Your task to perform on an android device: turn off location Image 0: 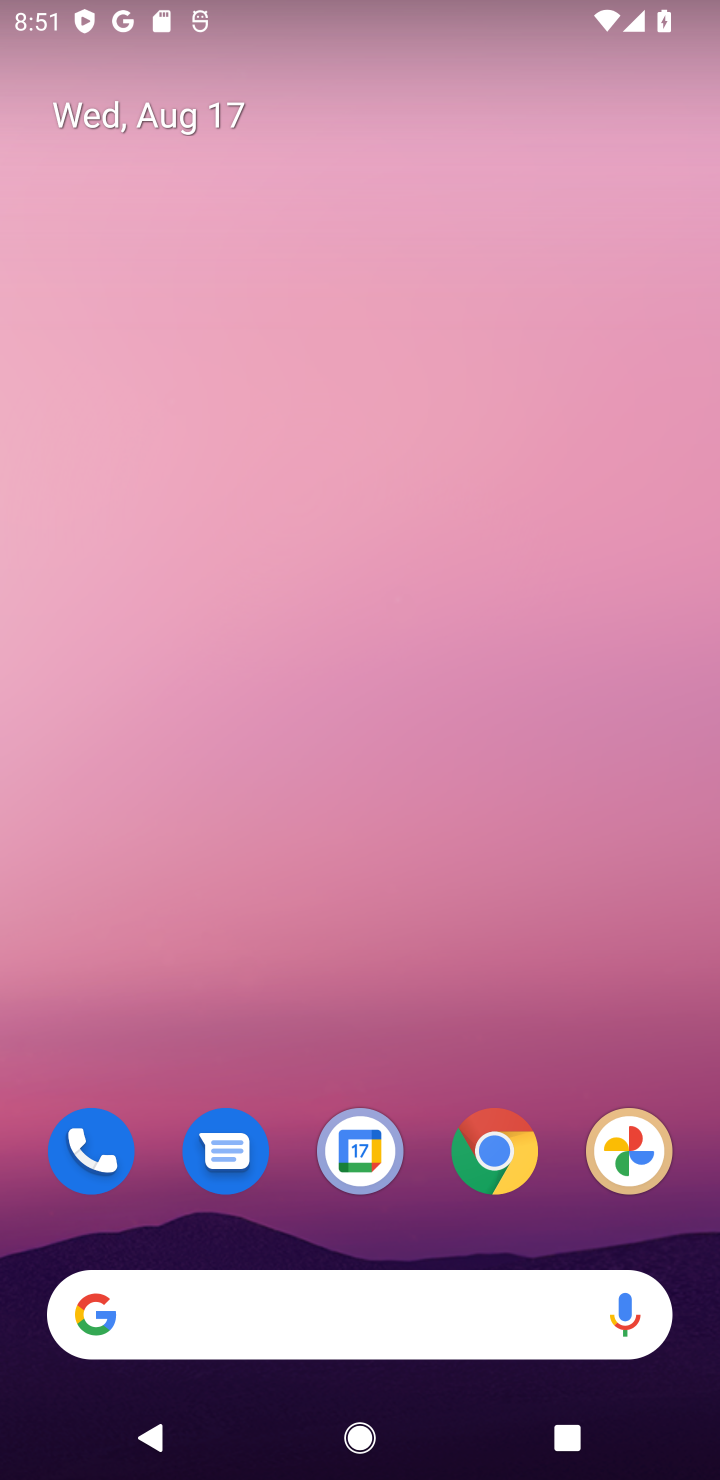
Step 0: drag from (333, 1200) to (199, 320)
Your task to perform on an android device: turn off location Image 1: 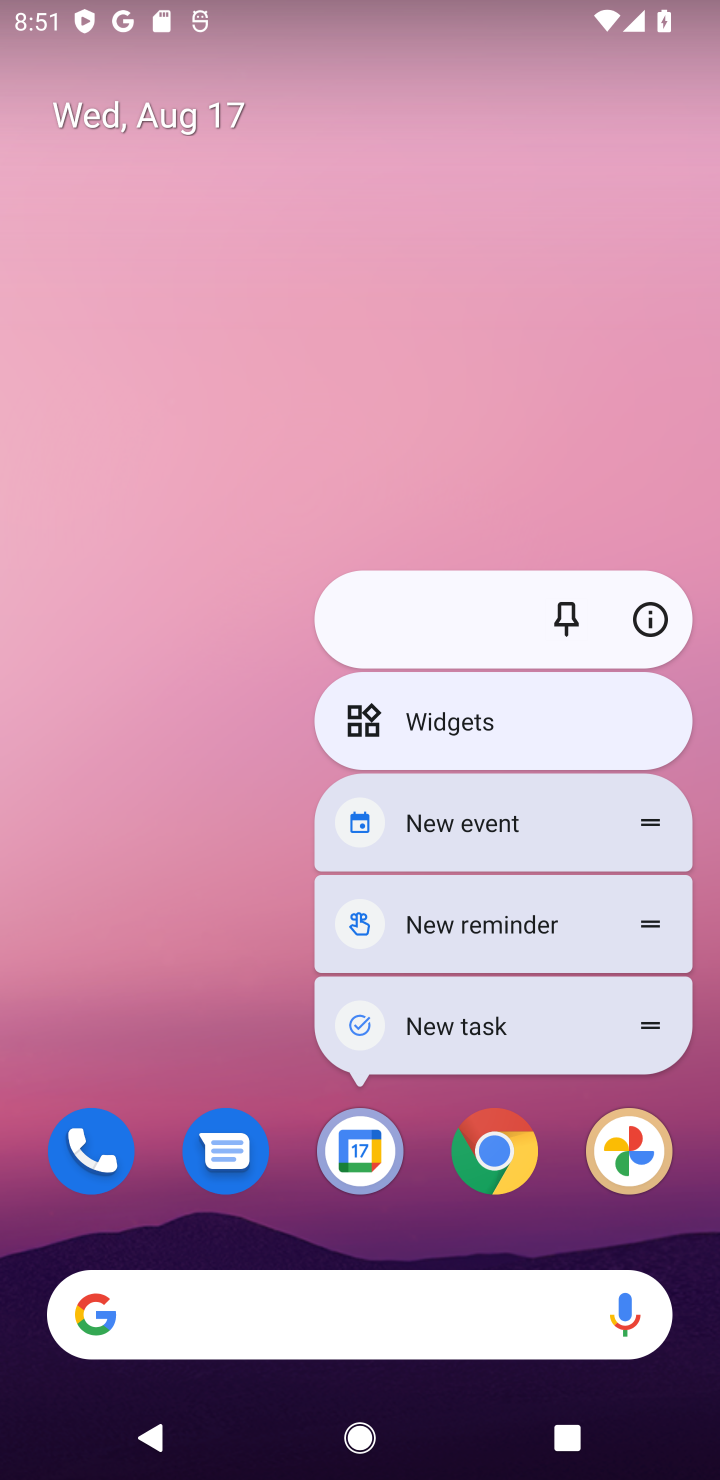
Step 1: click (315, 1231)
Your task to perform on an android device: turn off location Image 2: 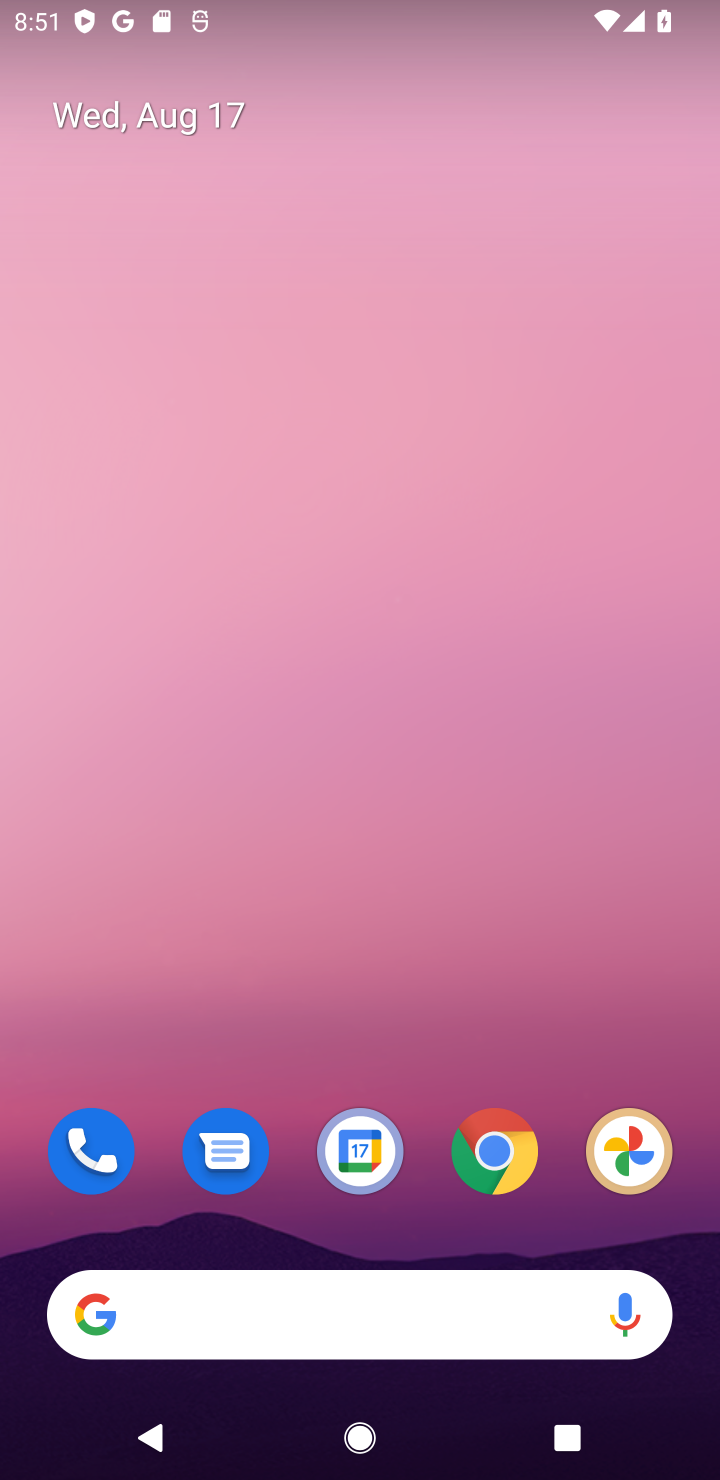
Step 2: drag from (287, 1039) to (287, 304)
Your task to perform on an android device: turn off location Image 3: 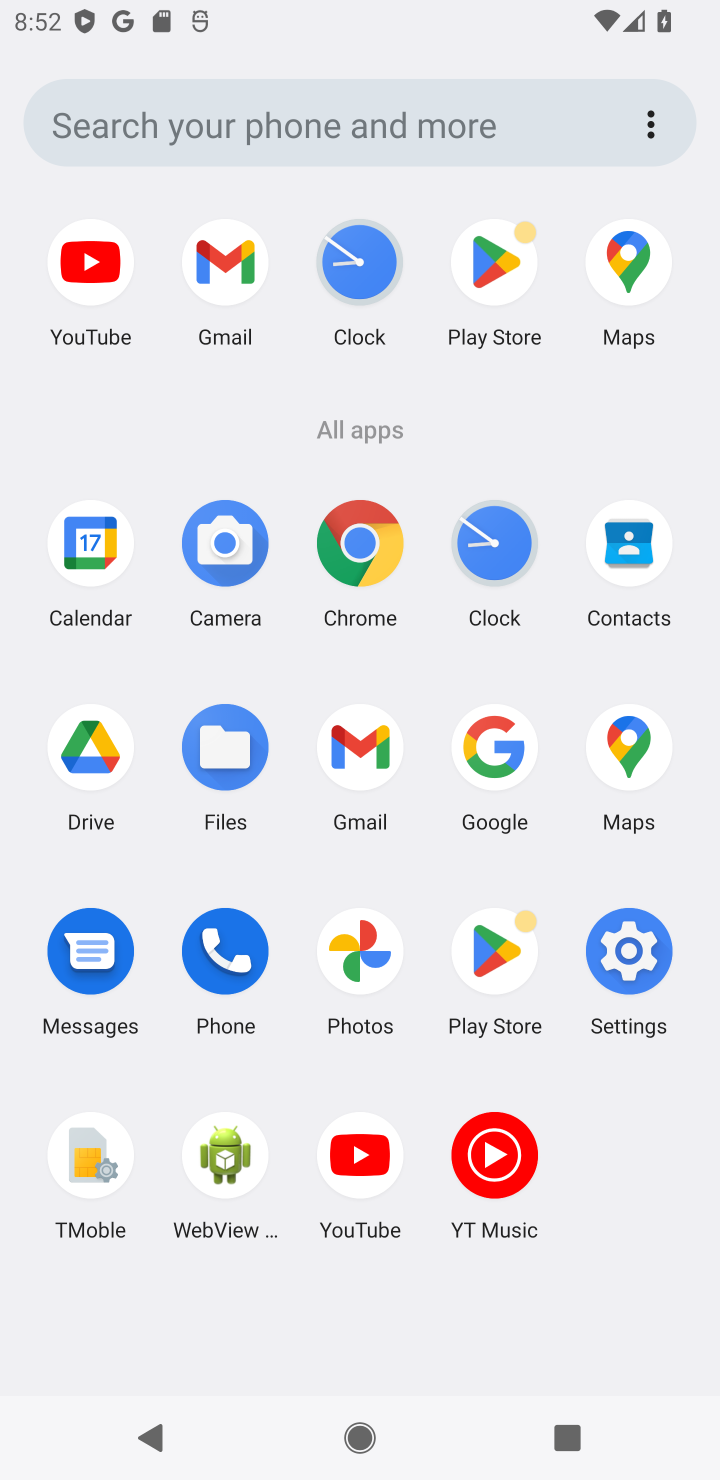
Step 3: click (638, 969)
Your task to perform on an android device: turn off location Image 4: 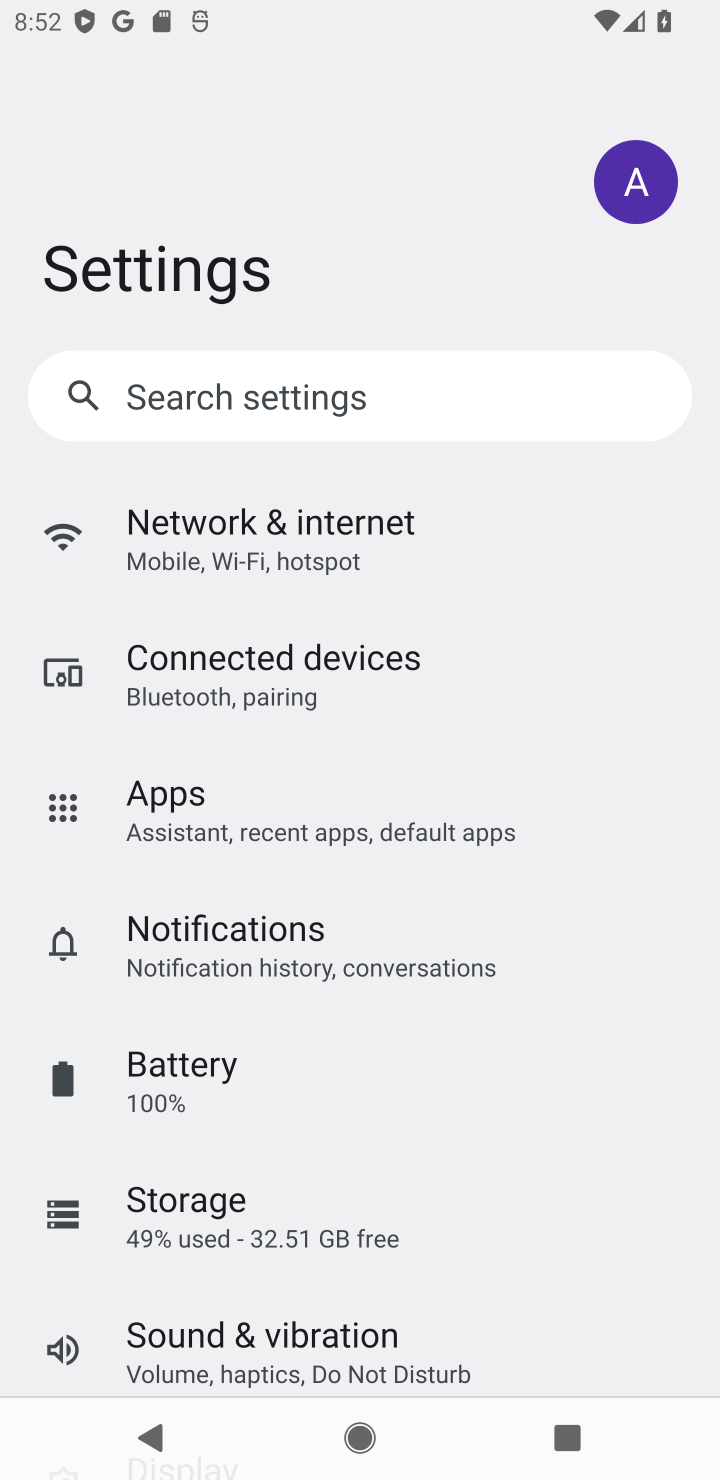
Step 4: drag from (419, 1229) to (352, 763)
Your task to perform on an android device: turn off location Image 5: 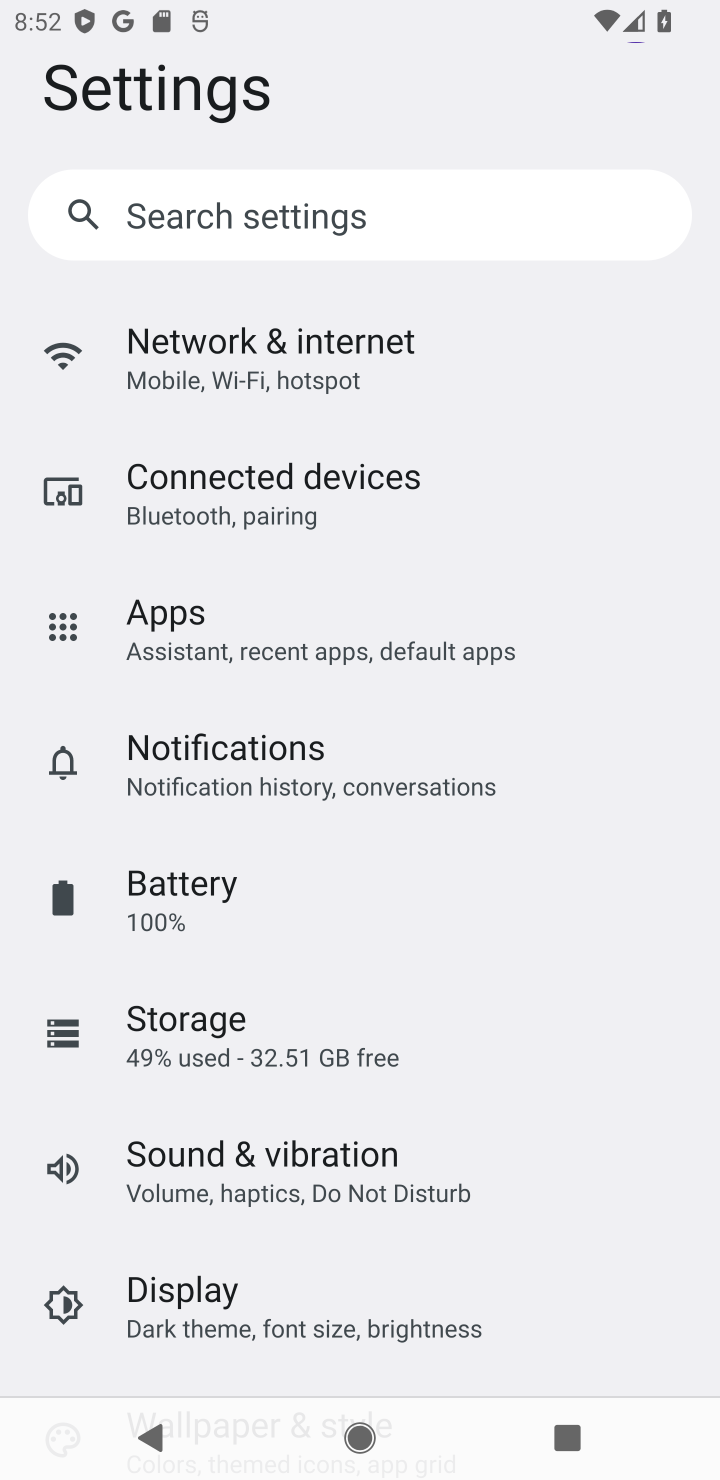
Step 5: drag from (304, 1262) to (304, 755)
Your task to perform on an android device: turn off location Image 6: 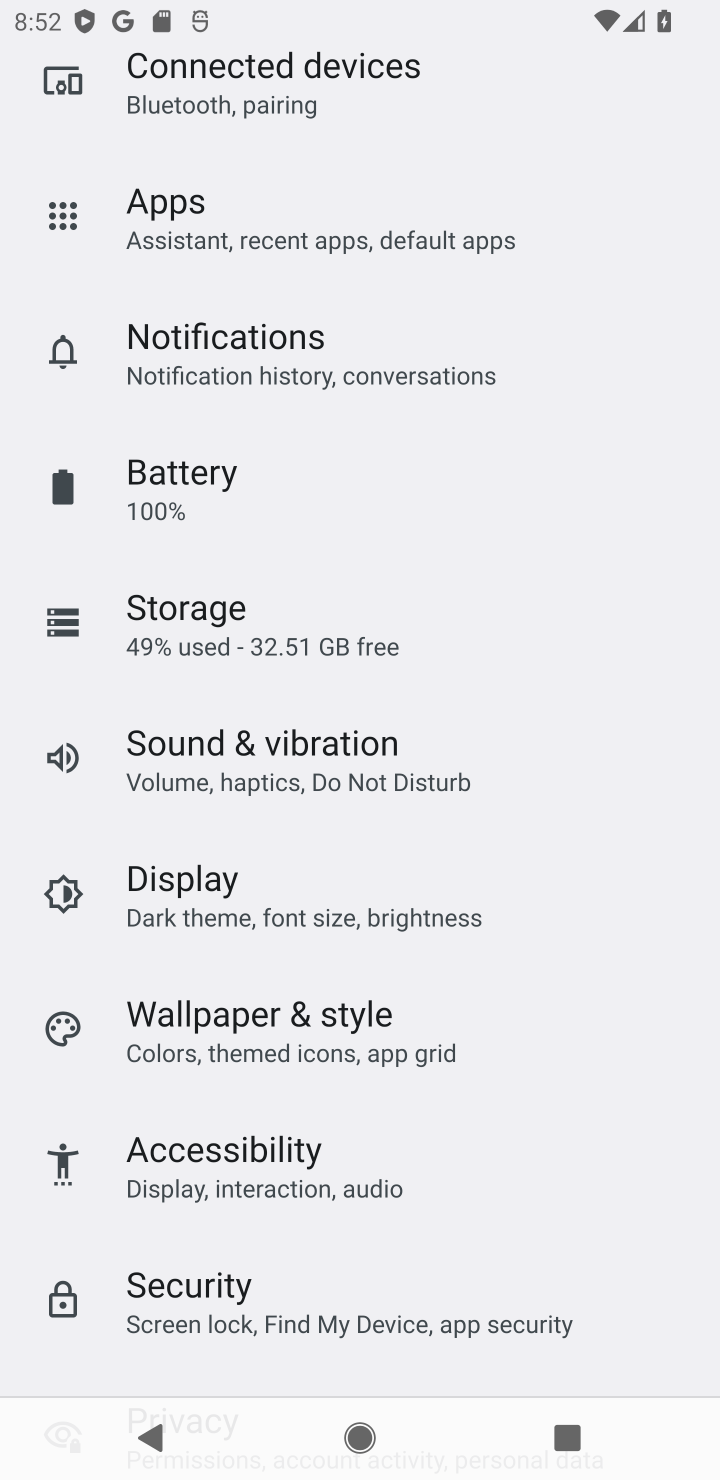
Step 6: drag from (412, 877) to (399, 558)
Your task to perform on an android device: turn off location Image 7: 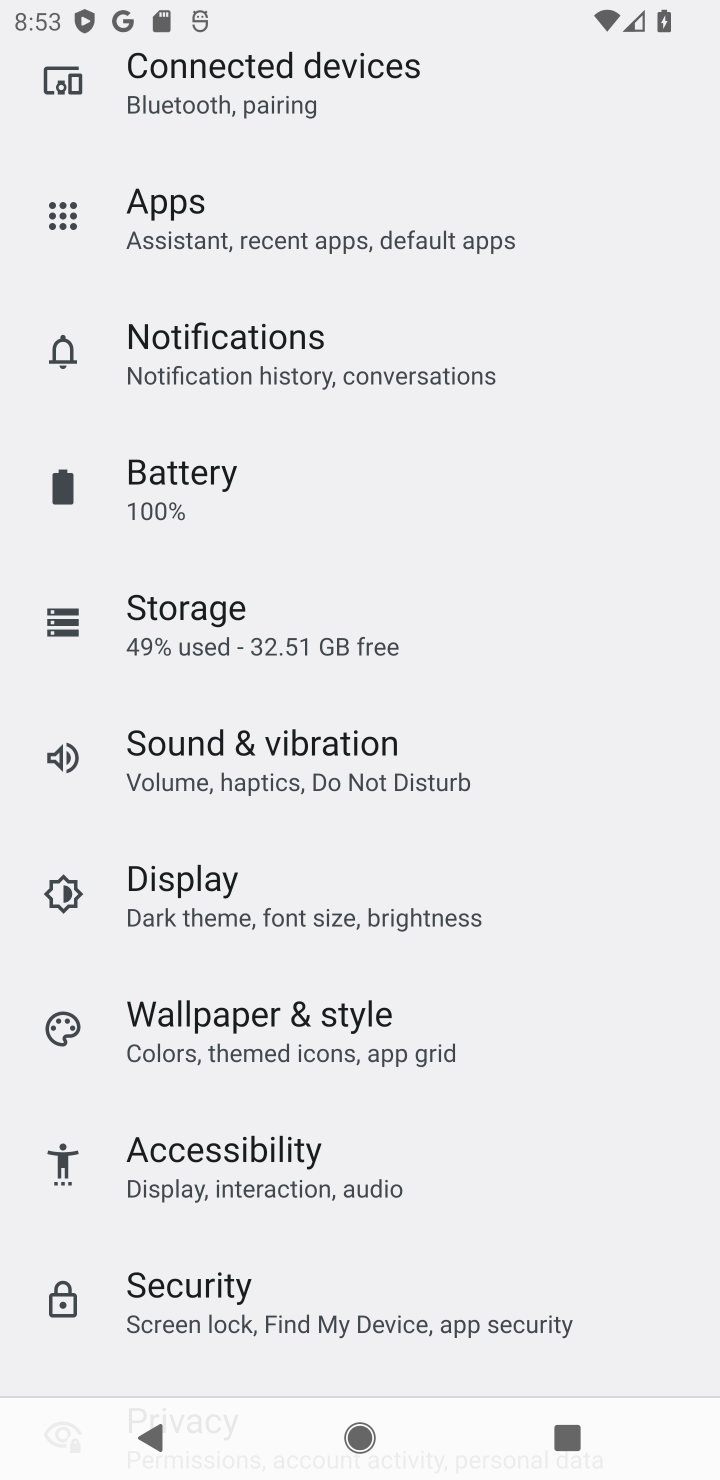
Step 7: drag from (225, 1176) to (219, 777)
Your task to perform on an android device: turn off location Image 8: 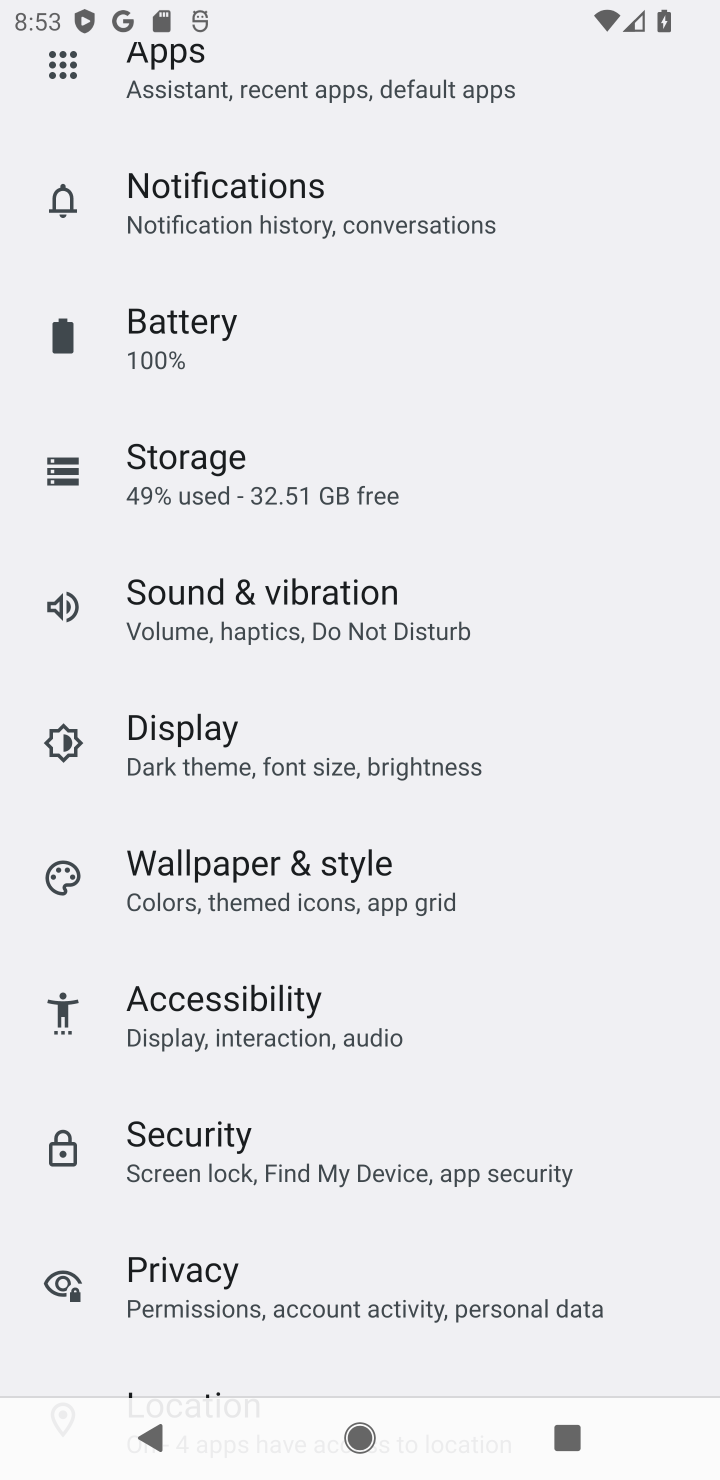
Step 8: drag from (251, 1154) to (251, 639)
Your task to perform on an android device: turn off location Image 9: 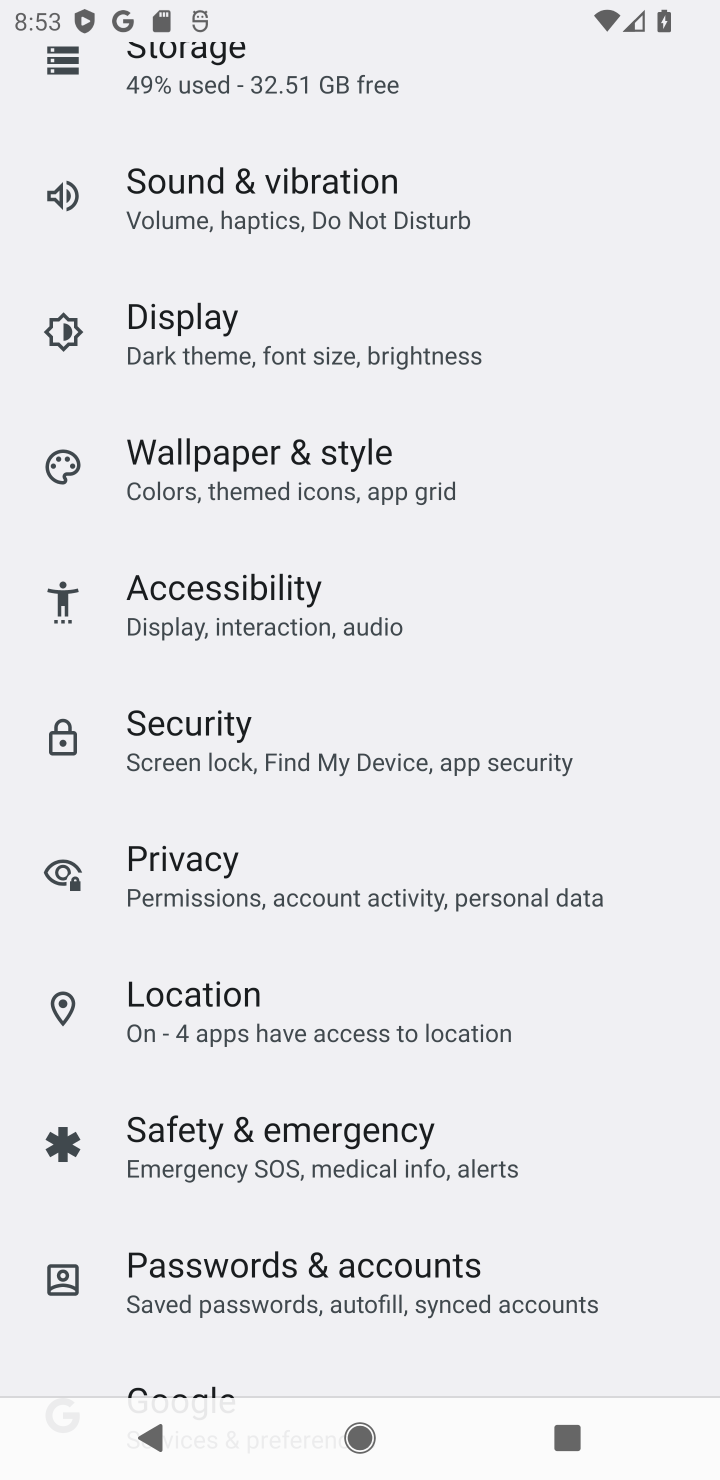
Step 9: drag from (290, 1277) to (290, 663)
Your task to perform on an android device: turn off location Image 10: 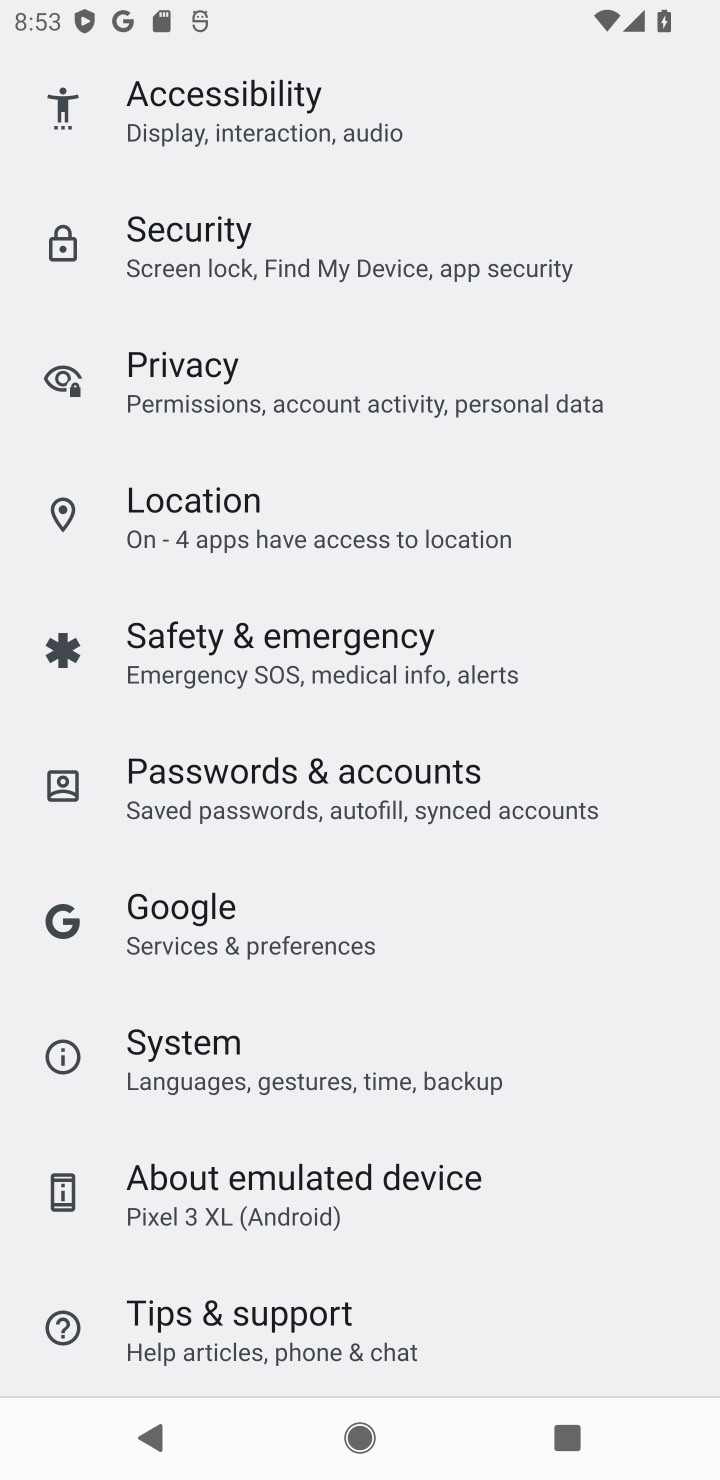
Step 10: drag from (430, 1210) to (368, 418)
Your task to perform on an android device: turn off location Image 11: 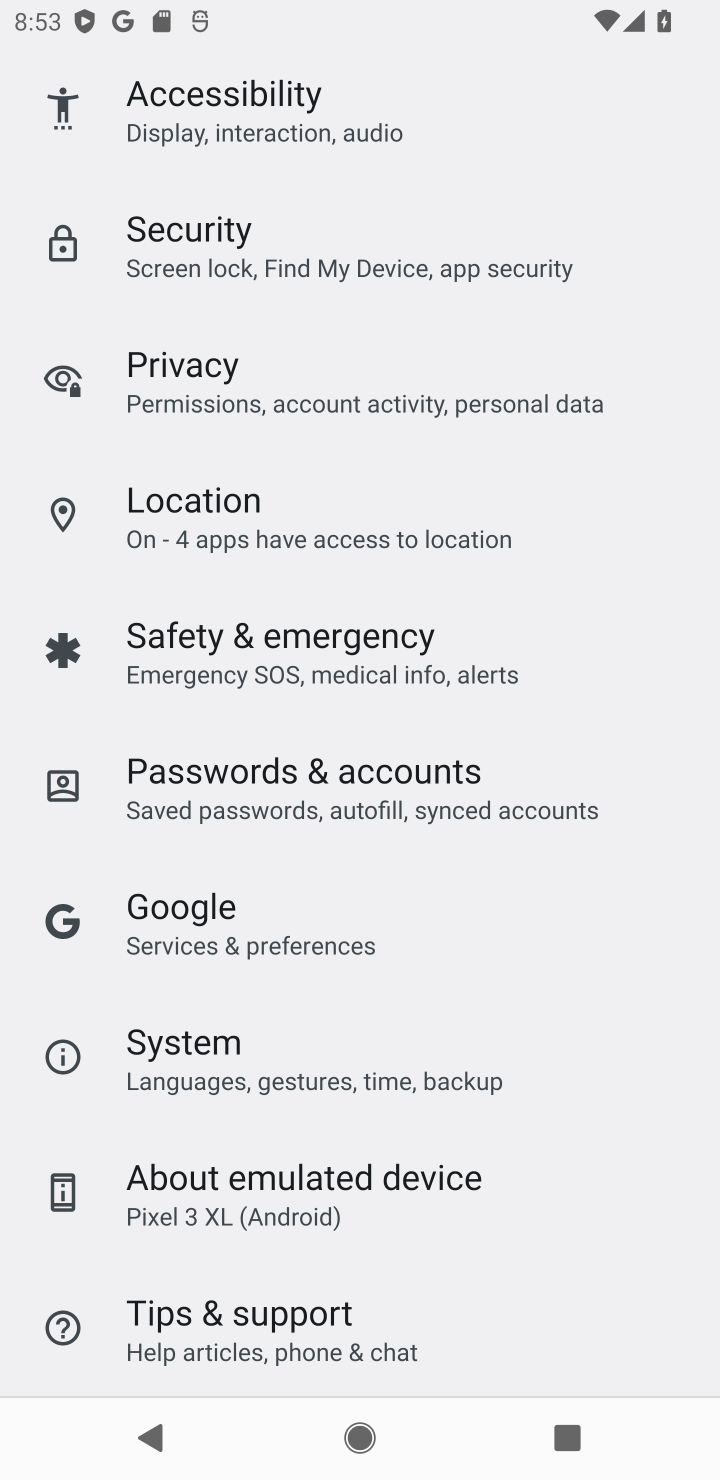
Step 11: click (212, 503)
Your task to perform on an android device: turn off location Image 12: 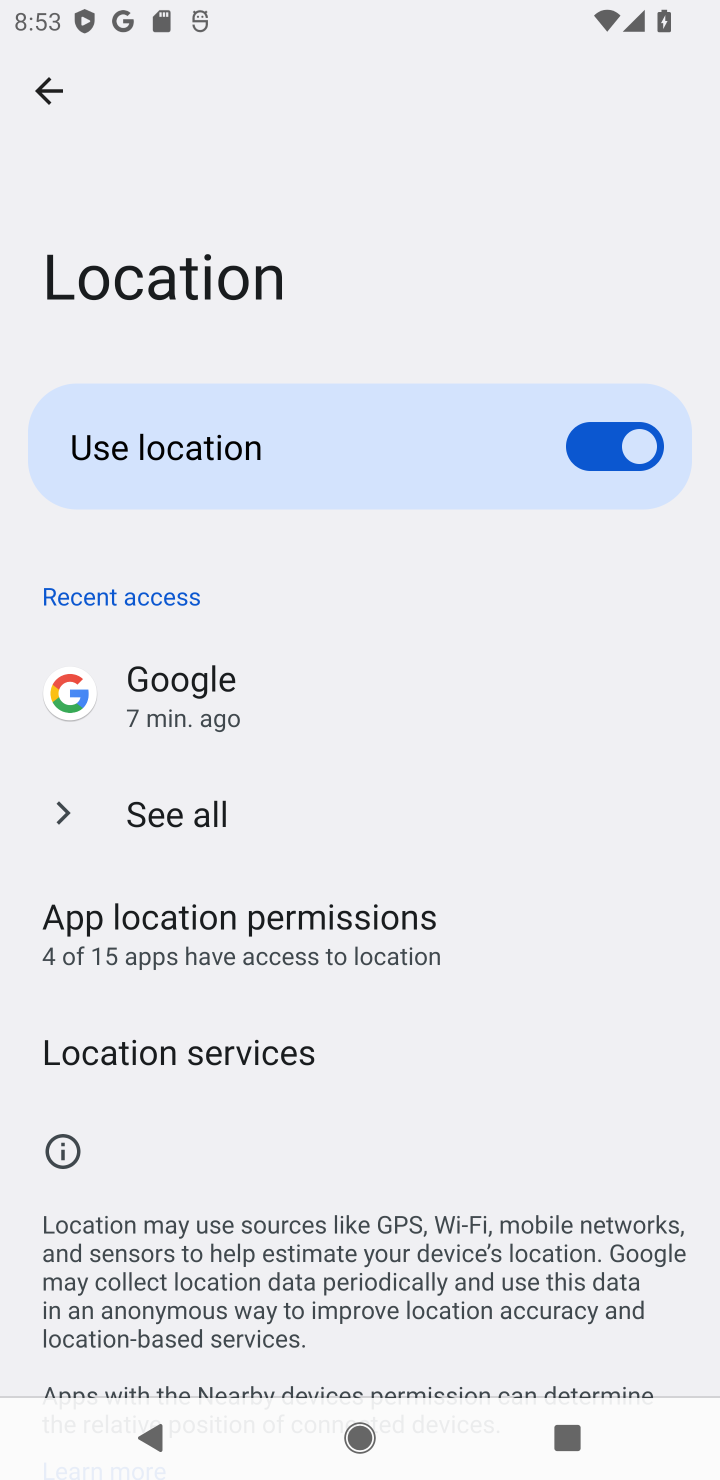
Step 12: click (599, 422)
Your task to perform on an android device: turn off location Image 13: 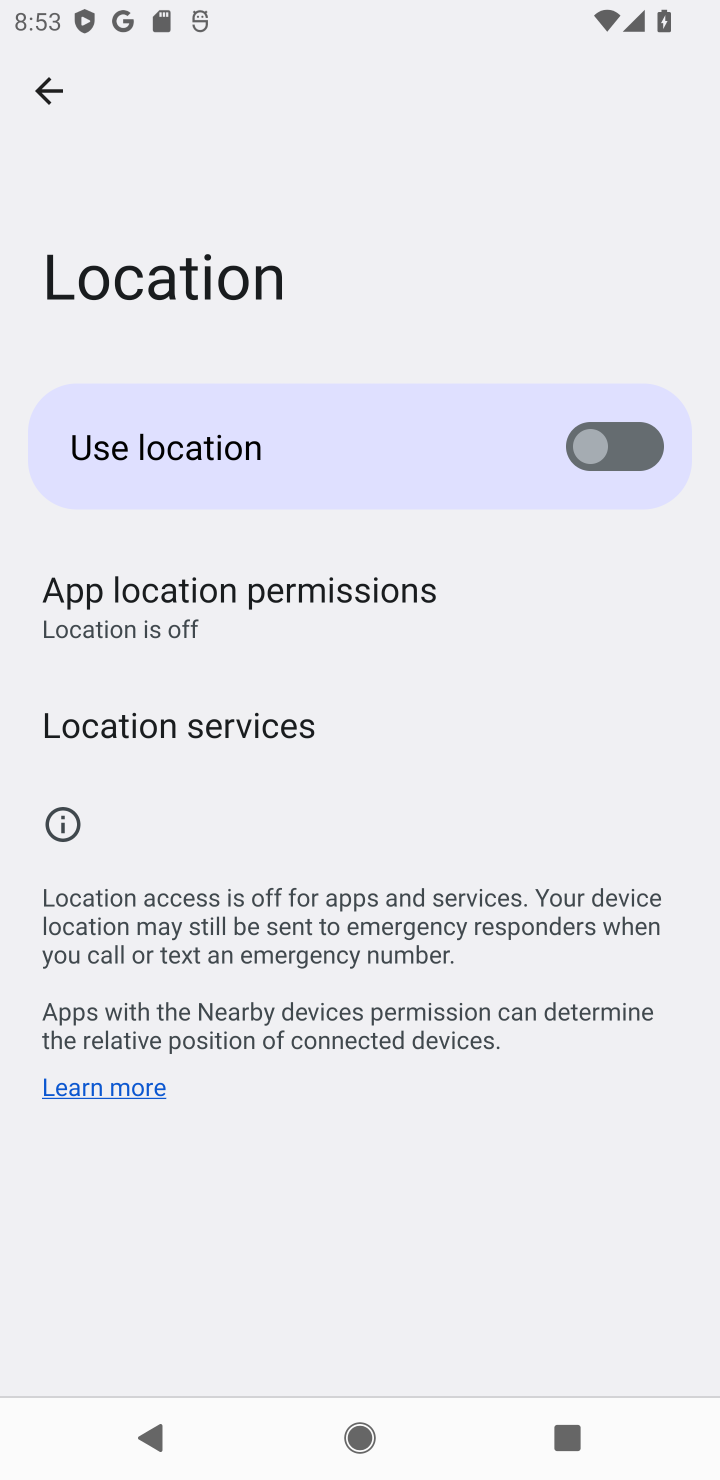
Step 13: task complete